Your task to perform on an android device: Open sound settings Image 0: 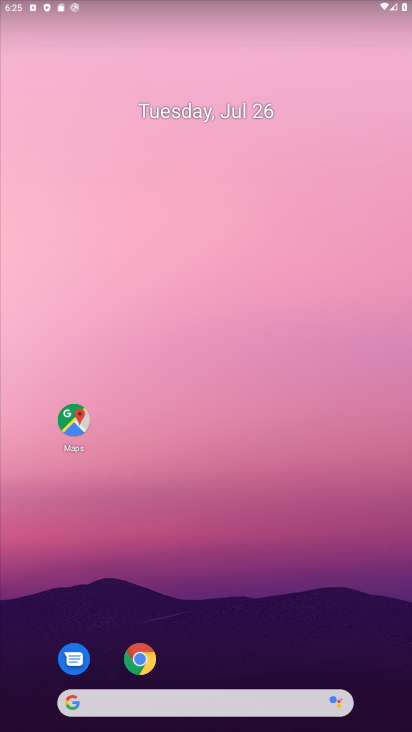
Step 0: drag from (271, 553) to (260, 171)
Your task to perform on an android device: Open sound settings Image 1: 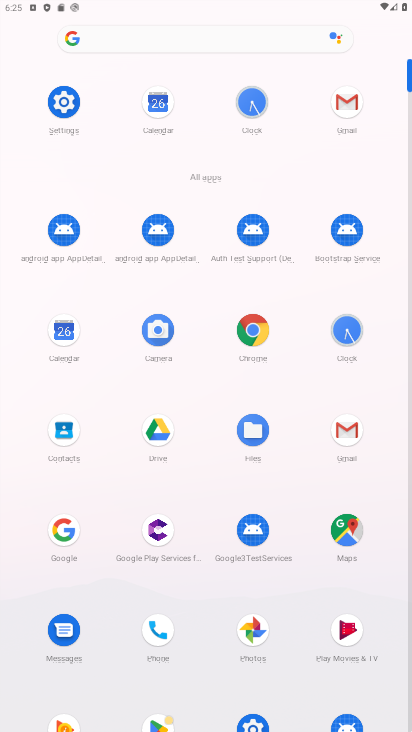
Step 1: click (56, 101)
Your task to perform on an android device: Open sound settings Image 2: 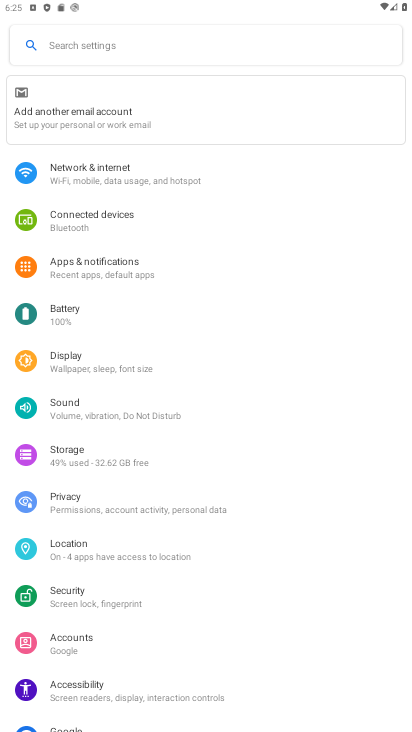
Step 2: click (69, 410)
Your task to perform on an android device: Open sound settings Image 3: 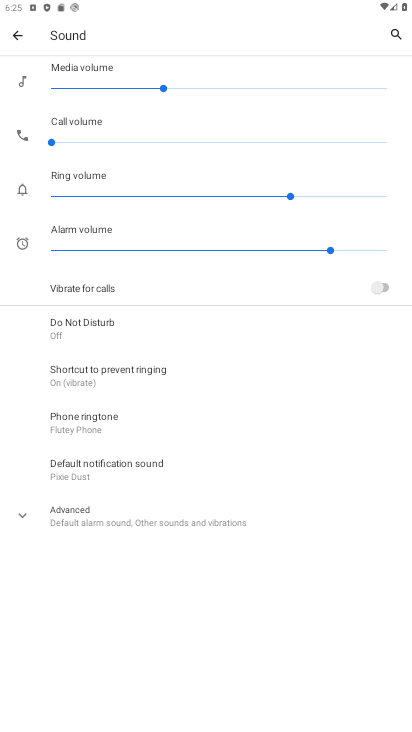
Step 3: task complete